Your task to perform on an android device: Search for vegetarian restaurants on Maps Image 0: 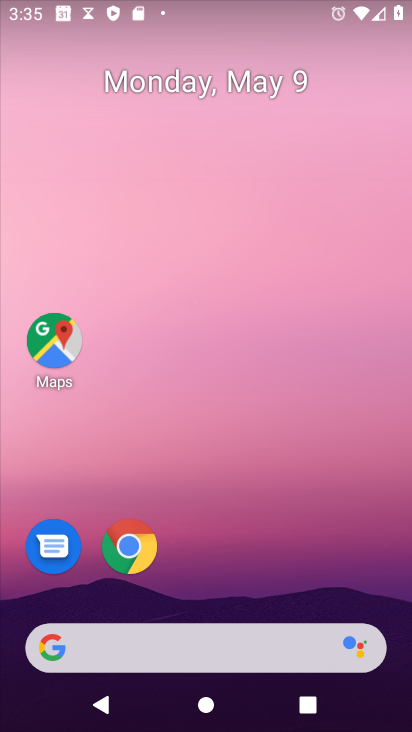
Step 0: drag from (360, 502) to (267, 154)
Your task to perform on an android device: Search for vegetarian restaurants on Maps Image 1: 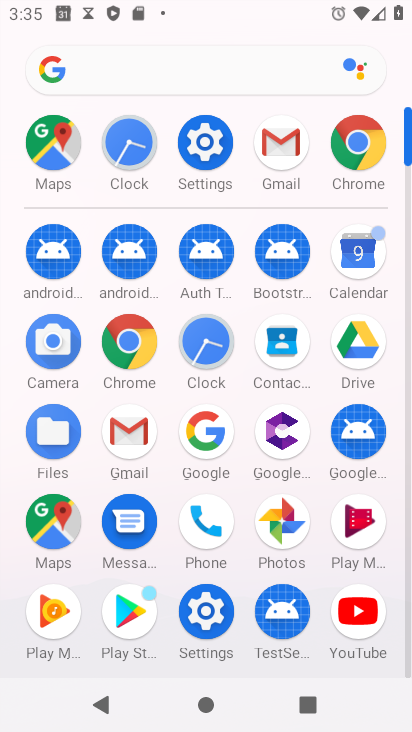
Step 1: click (53, 136)
Your task to perform on an android device: Search for vegetarian restaurants on Maps Image 2: 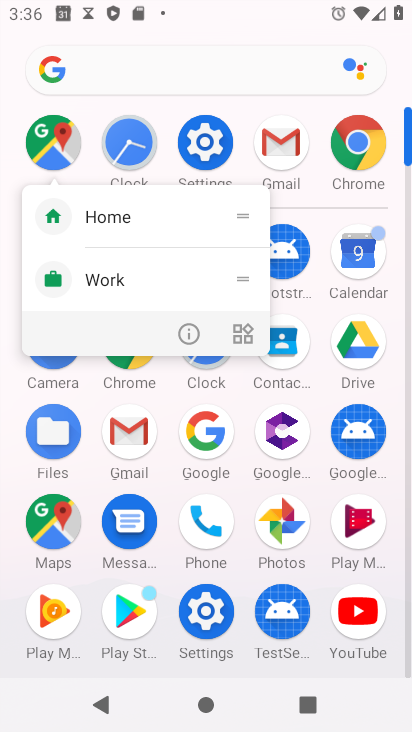
Step 2: click (67, 518)
Your task to perform on an android device: Search for vegetarian restaurants on Maps Image 3: 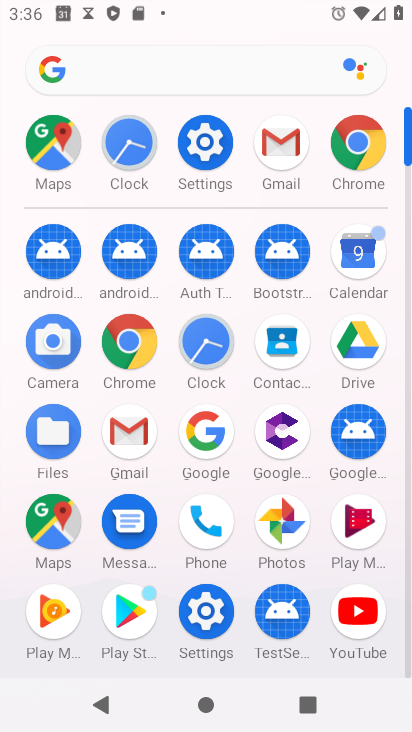
Step 3: click (53, 529)
Your task to perform on an android device: Search for vegetarian restaurants on Maps Image 4: 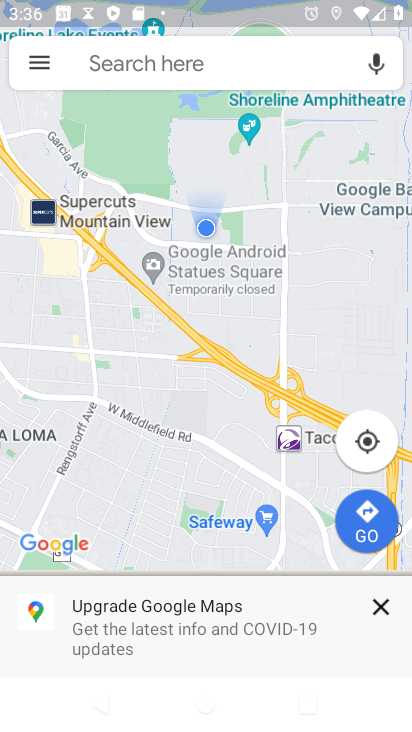
Step 4: click (227, 64)
Your task to perform on an android device: Search for vegetarian restaurants on Maps Image 5: 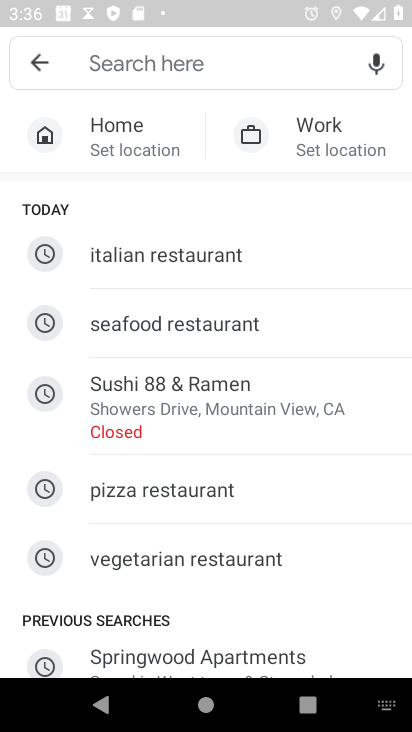
Step 5: click (196, 556)
Your task to perform on an android device: Search for vegetarian restaurants on Maps Image 6: 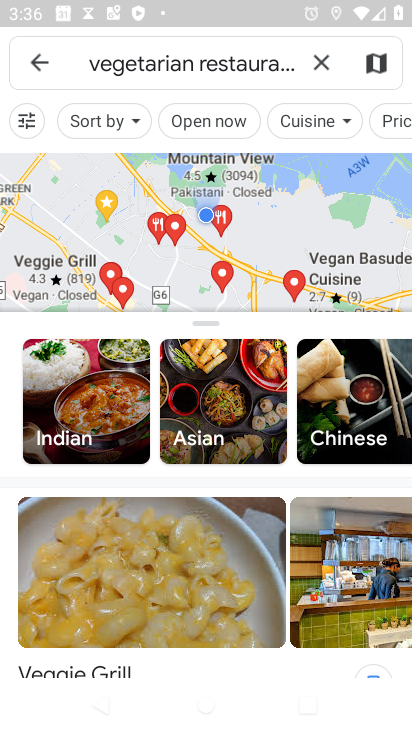
Step 6: task complete